Your task to perform on an android device: Open Google Image 0: 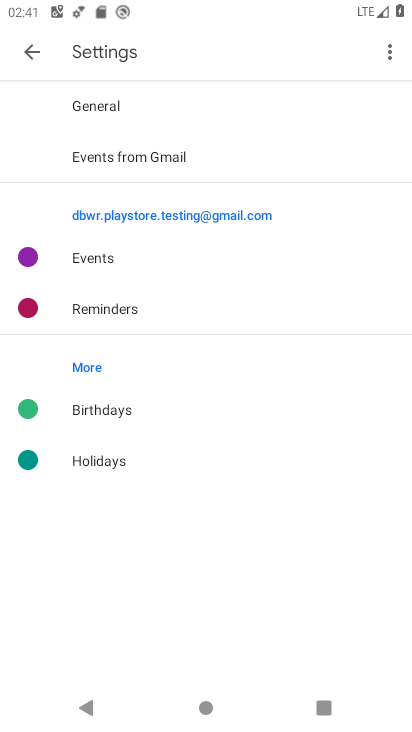
Step 0: press home button
Your task to perform on an android device: Open Google Image 1: 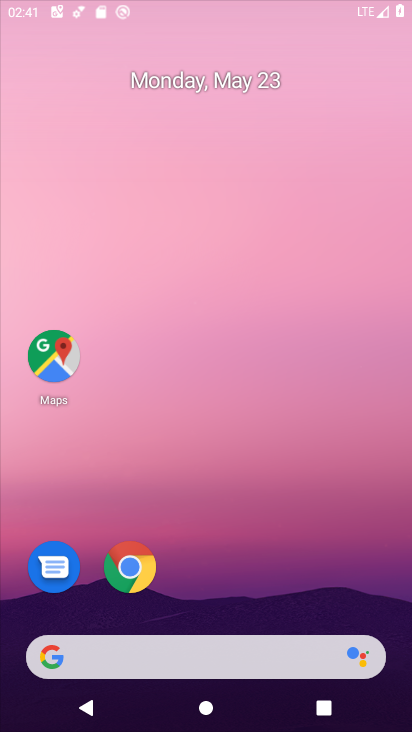
Step 1: drag from (228, 569) to (241, 212)
Your task to perform on an android device: Open Google Image 2: 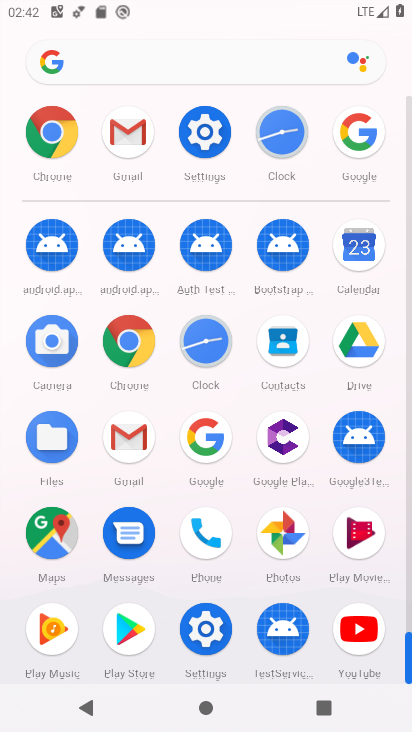
Step 2: click (190, 450)
Your task to perform on an android device: Open Google Image 3: 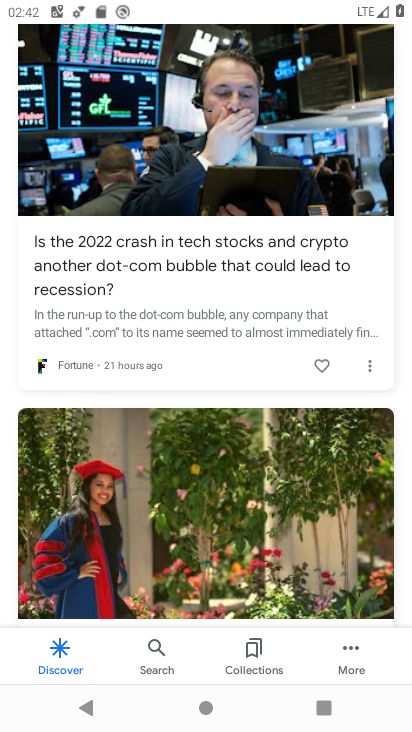
Step 3: task complete